Your task to perform on an android device: turn pop-ups on in chrome Image 0: 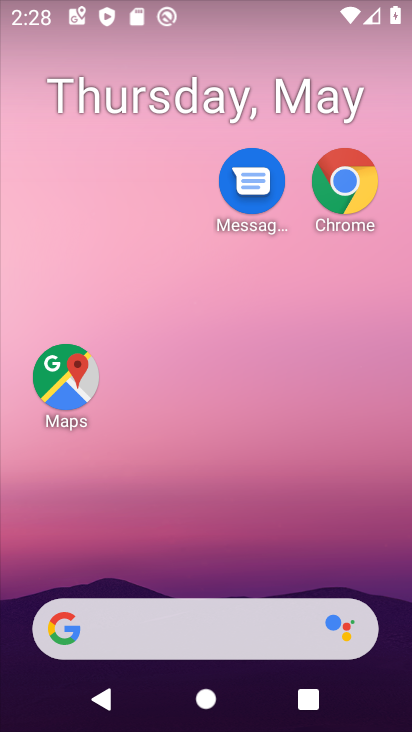
Step 0: drag from (83, 602) to (130, 46)
Your task to perform on an android device: turn pop-ups on in chrome Image 1: 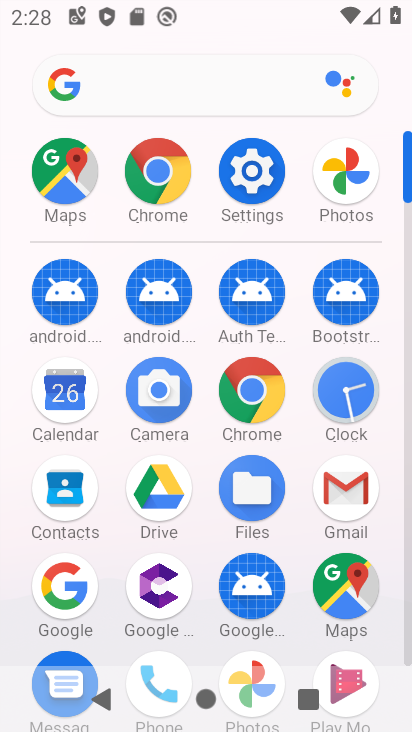
Step 1: click (270, 389)
Your task to perform on an android device: turn pop-ups on in chrome Image 2: 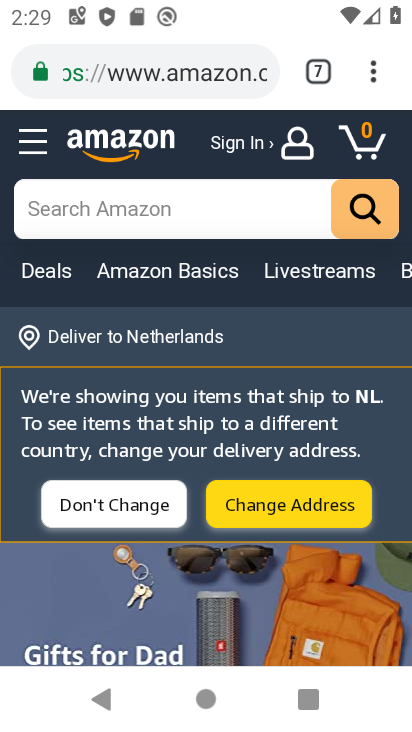
Step 2: click (364, 70)
Your task to perform on an android device: turn pop-ups on in chrome Image 3: 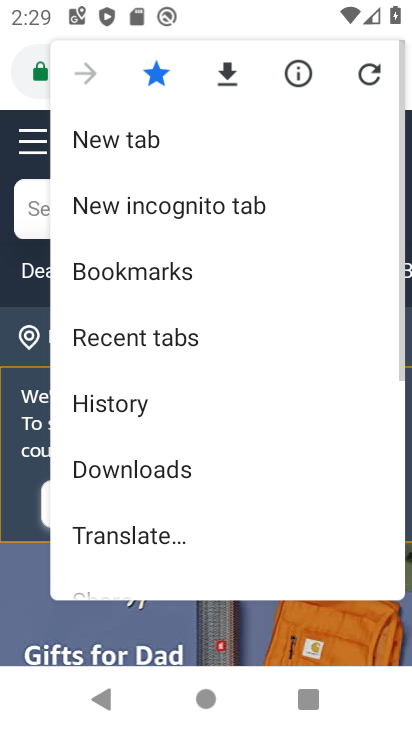
Step 3: drag from (152, 546) to (131, 61)
Your task to perform on an android device: turn pop-ups on in chrome Image 4: 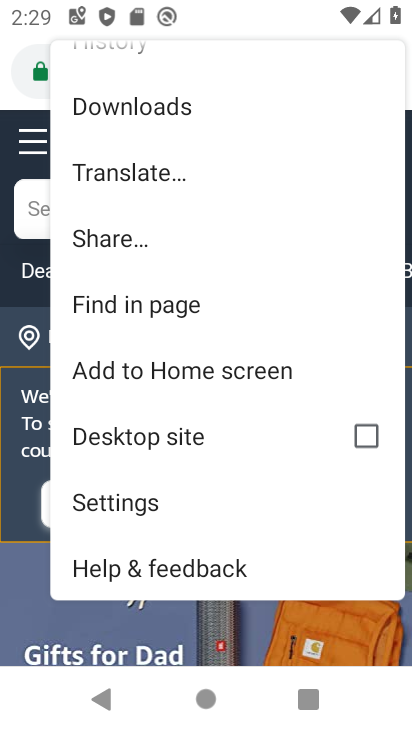
Step 4: click (190, 507)
Your task to perform on an android device: turn pop-ups on in chrome Image 5: 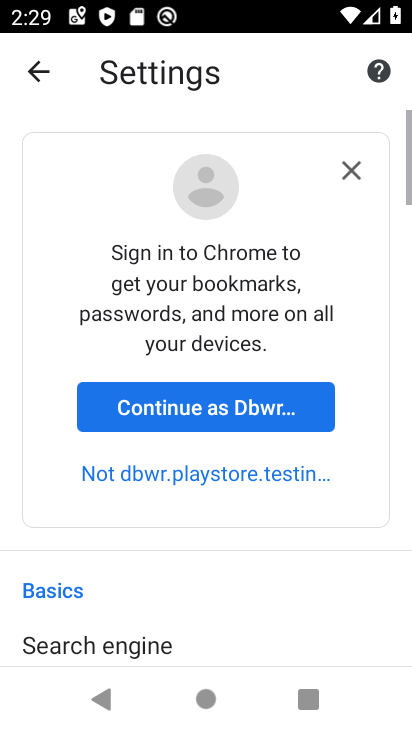
Step 5: drag from (173, 599) to (135, 88)
Your task to perform on an android device: turn pop-ups on in chrome Image 6: 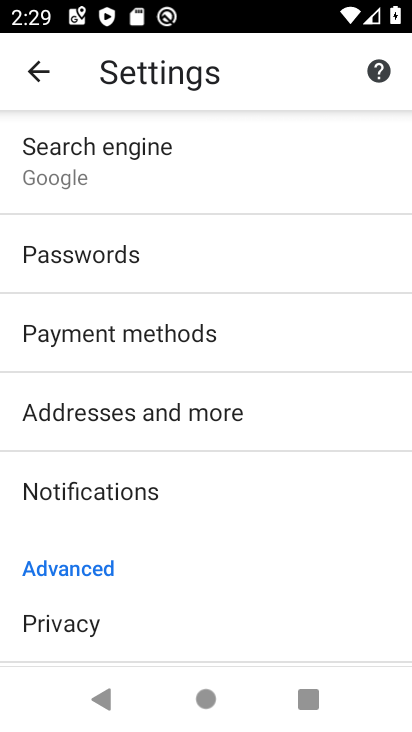
Step 6: drag from (193, 580) to (233, 226)
Your task to perform on an android device: turn pop-ups on in chrome Image 7: 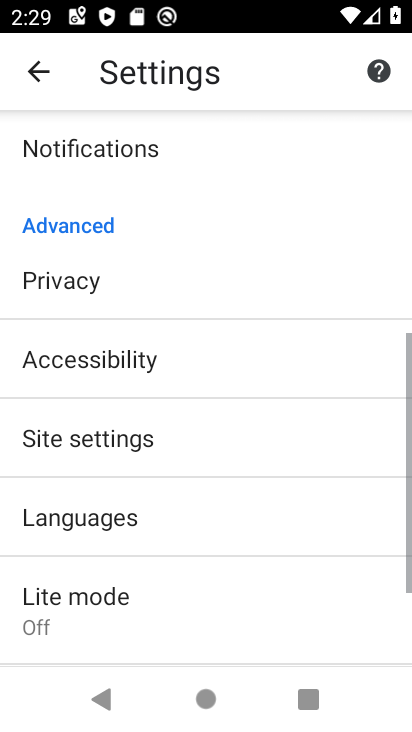
Step 7: click (134, 451)
Your task to perform on an android device: turn pop-ups on in chrome Image 8: 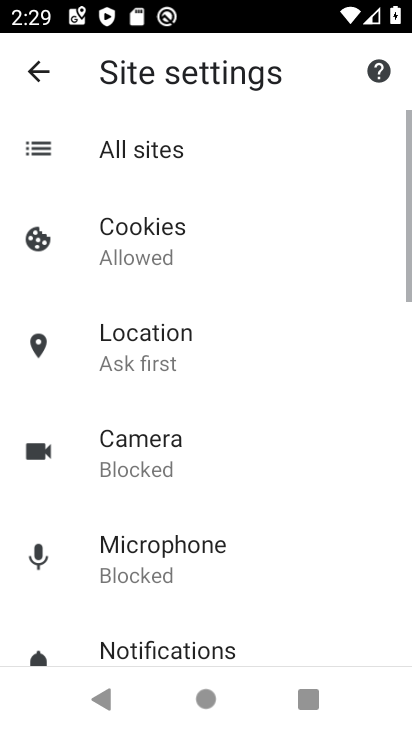
Step 8: drag from (160, 599) to (226, 114)
Your task to perform on an android device: turn pop-ups on in chrome Image 9: 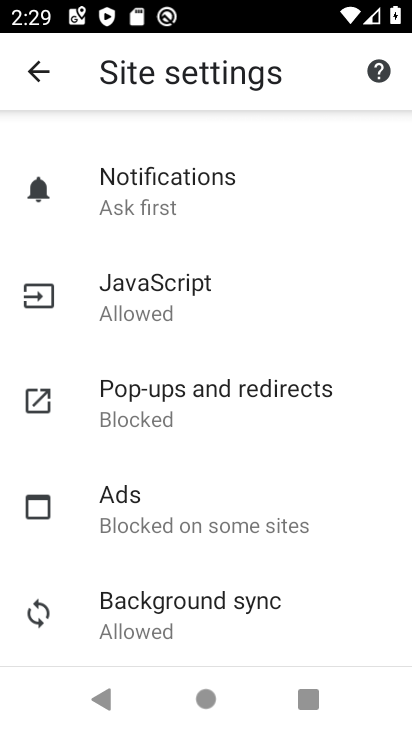
Step 9: click (217, 397)
Your task to perform on an android device: turn pop-ups on in chrome Image 10: 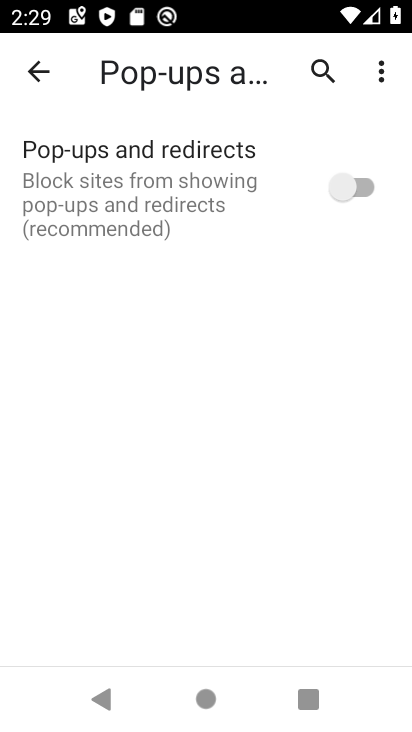
Step 10: click (355, 179)
Your task to perform on an android device: turn pop-ups on in chrome Image 11: 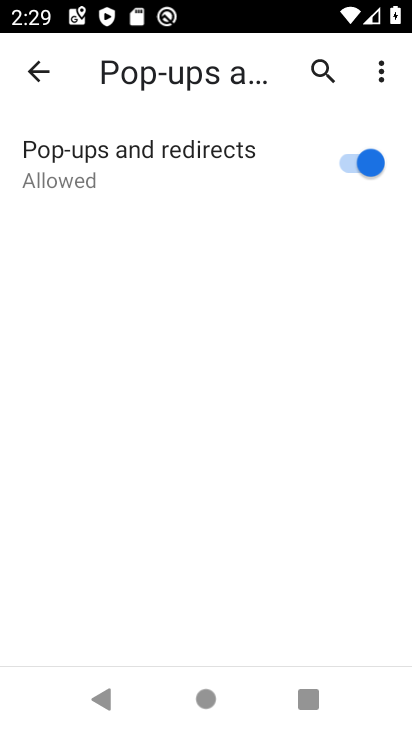
Step 11: task complete